Your task to perform on an android device: turn on the 12-hour format for clock Image 0: 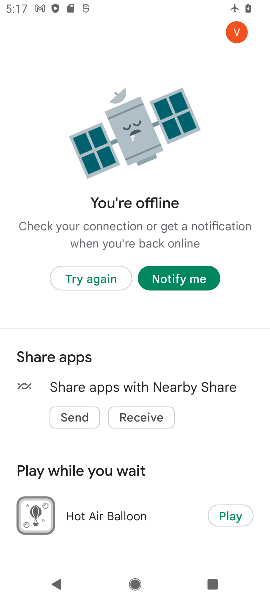
Step 0: press home button
Your task to perform on an android device: turn on the 12-hour format for clock Image 1: 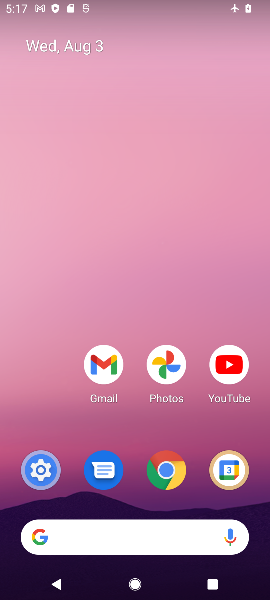
Step 1: drag from (191, 426) to (204, 106)
Your task to perform on an android device: turn on the 12-hour format for clock Image 2: 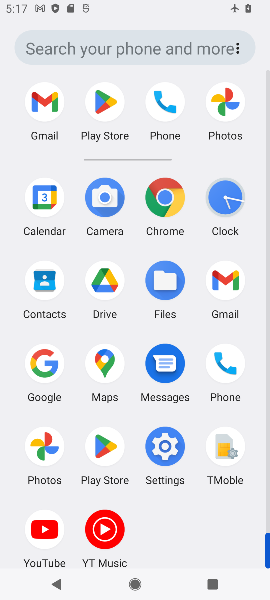
Step 2: click (226, 194)
Your task to perform on an android device: turn on the 12-hour format for clock Image 3: 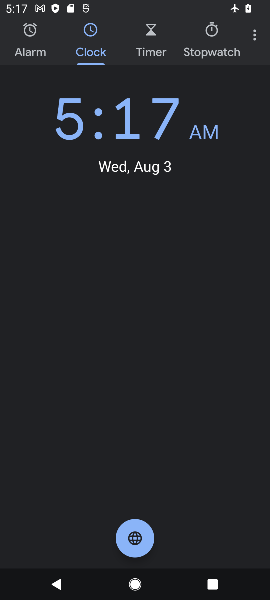
Step 3: click (253, 32)
Your task to perform on an android device: turn on the 12-hour format for clock Image 4: 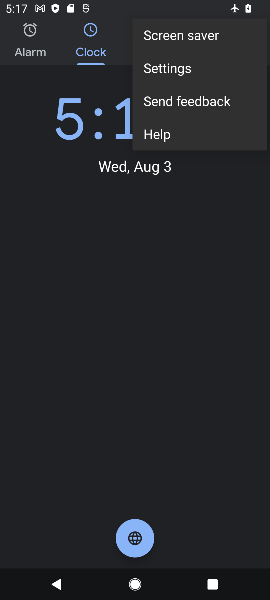
Step 4: click (190, 76)
Your task to perform on an android device: turn on the 12-hour format for clock Image 5: 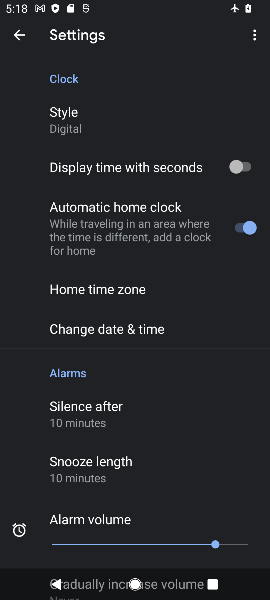
Step 5: click (144, 334)
Your task to perform on an android device: turn on the 12-hour format for clock Image 6: 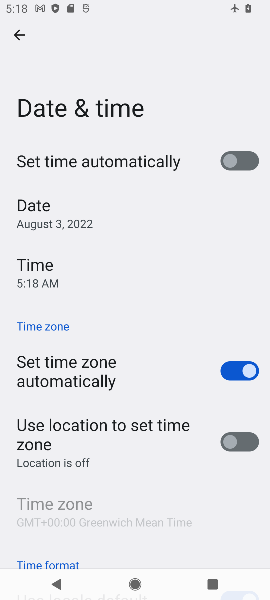
Step 6: task complete